Your task to perform on an android device: search for starred emails in the gmail app Image 0: 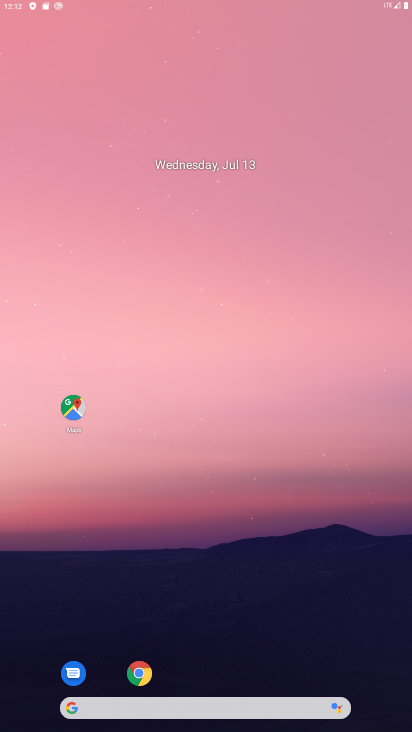
Step 0: click (255, 275)
Your task to perform on an android device: search for starred emails in the gmail app Image 1: 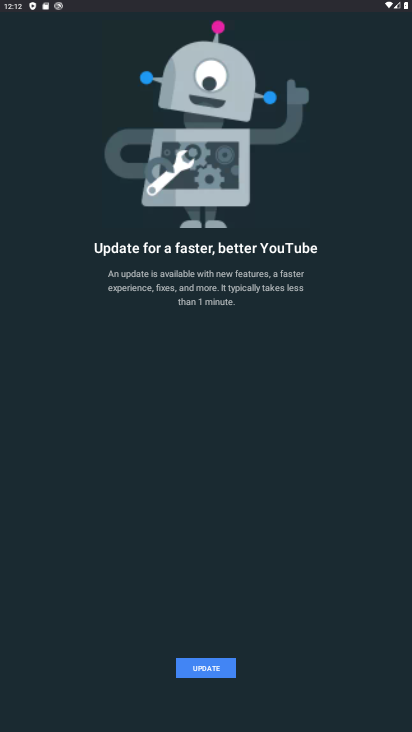
Step 1: press back button
Your task to perform on an android device: search for starred emails in the gmail app Image 2: 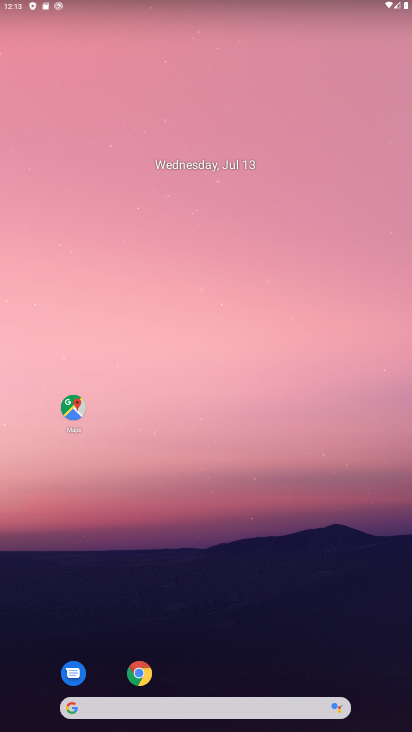
Step 2: drag from (234, 653) to (258, 235)
Your task to perform on an android device: search for starred emails in the gmail app Image 3: 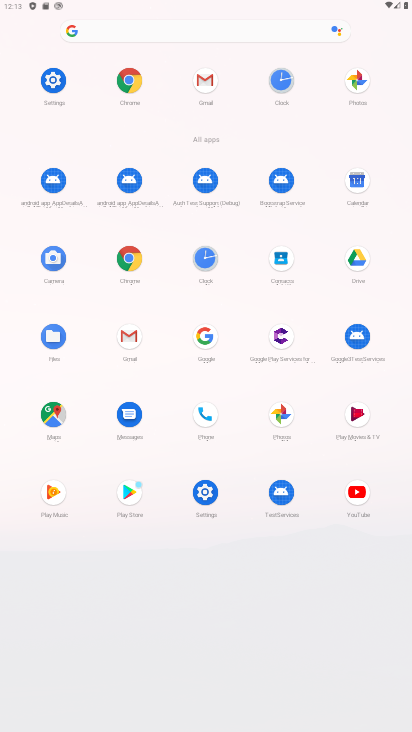
Step 3: click (210, 87)
Your task to perform on an android device: search for starred emails in the gmail app Image 4: 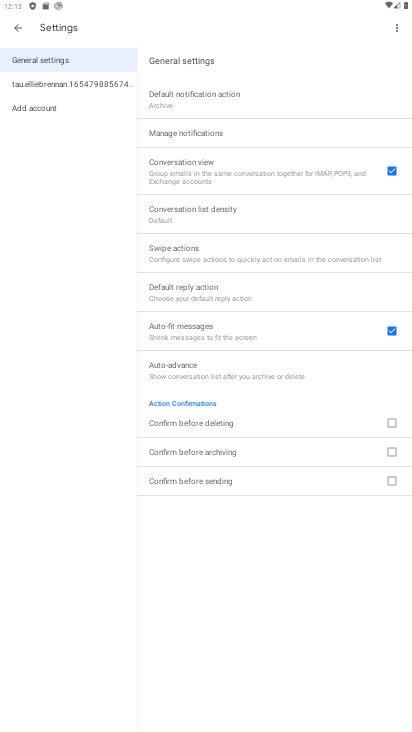
Step 4: click (104, 88)
Your task to perform on an android device: search for starred emails in the gmail app Image 5: 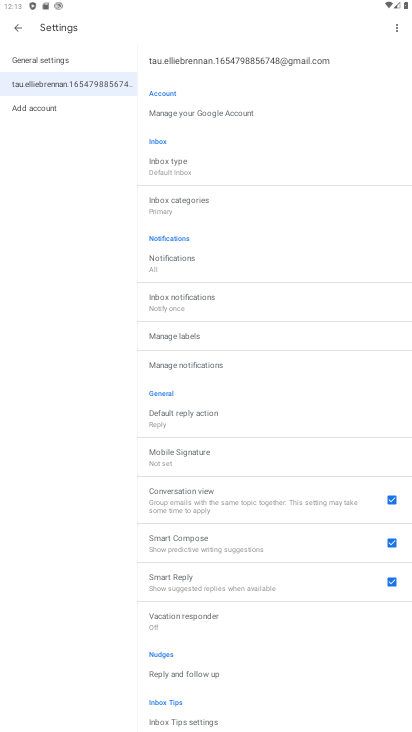
Step 5: click (12, 24)
Your task to perform on an android device: search for starred emails in the gmail app Image 6: 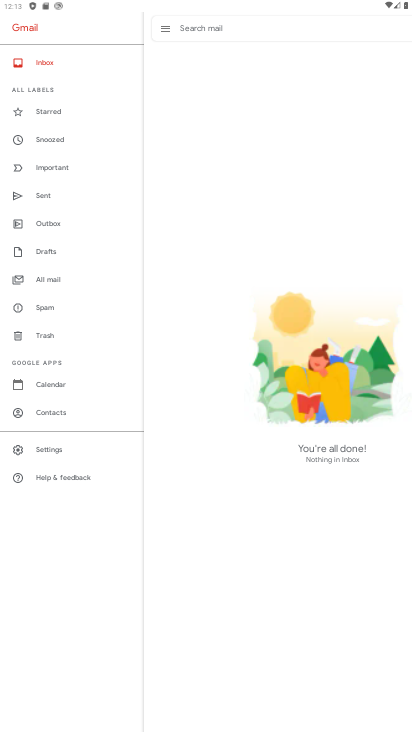
Step 6: click (52, 447)
Your task to perform on an android device: search for starred emails in the gmail app Image 7: 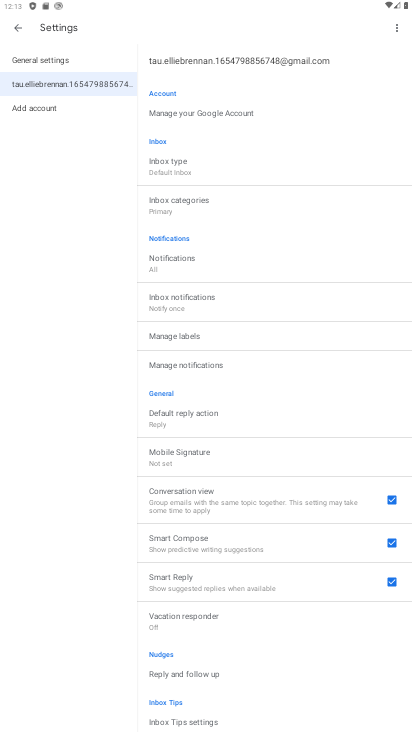
Step 7: task complete